Your task to perform on an android device: Open the phone app and click the voicemail tab. Image 0: 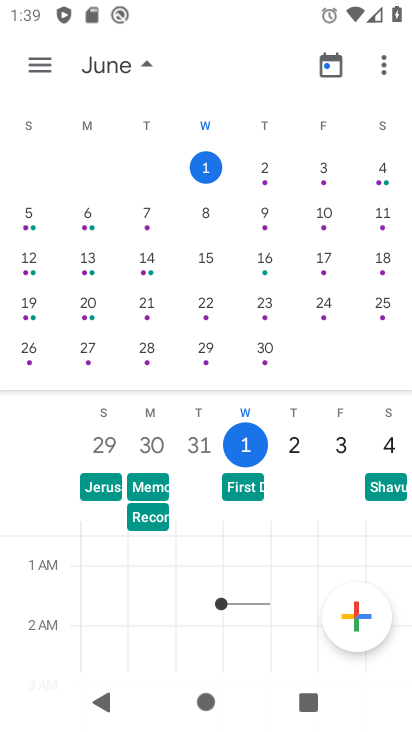
Step 0: press home button
Your task to perform on an android device: Open the phone app and click the voicemail tab. Image 1: 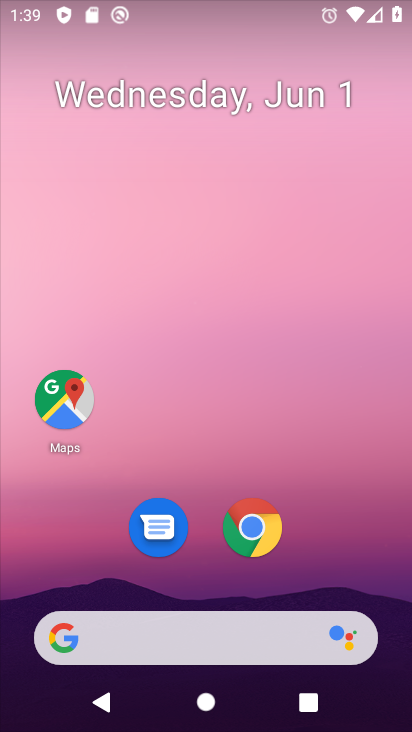
Step 1: drag from (383, 593) to (293, 129)
Your task to perform on an android device: Open the phone app and click the voicemail tab. Image 2: 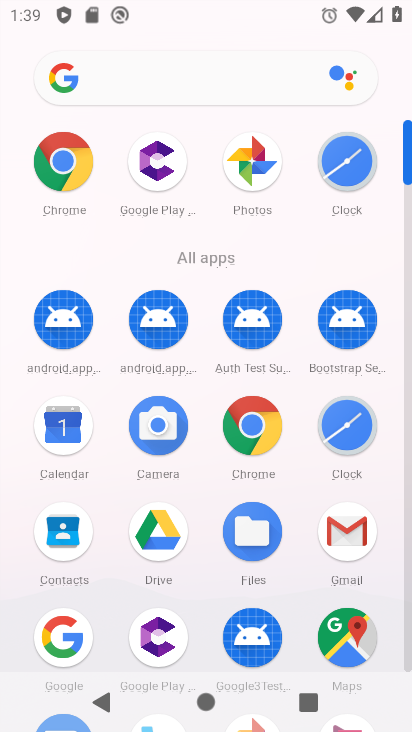
Step 2: click (409, 656)
Your task to perform on an android device: Open the phone app and click the voicemail tab. Image 3: 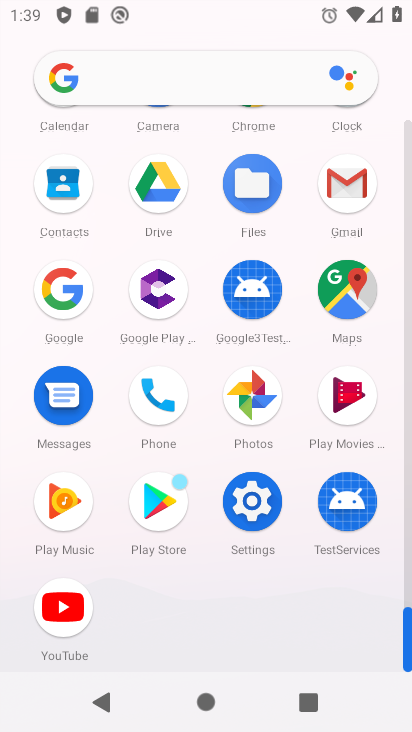
Step 3: click (174, 393)
Your task to perform on an android device: Open the phone app and click the voicemail tab. Image 4: 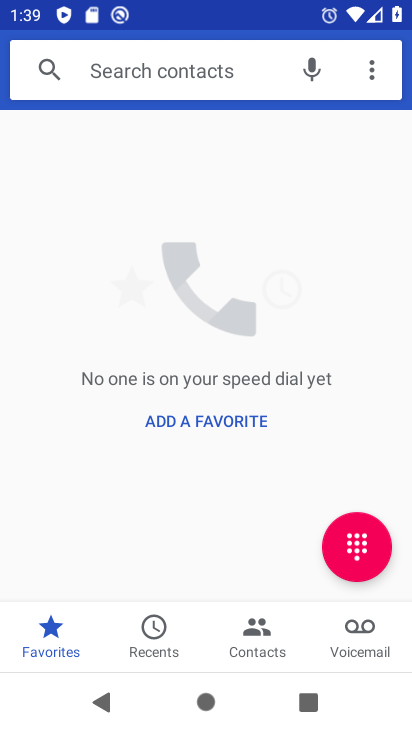
Step 4: click (360, 634)
Your task to perform on an android device: Open the phone app and click the voicemail tab. Image 5: 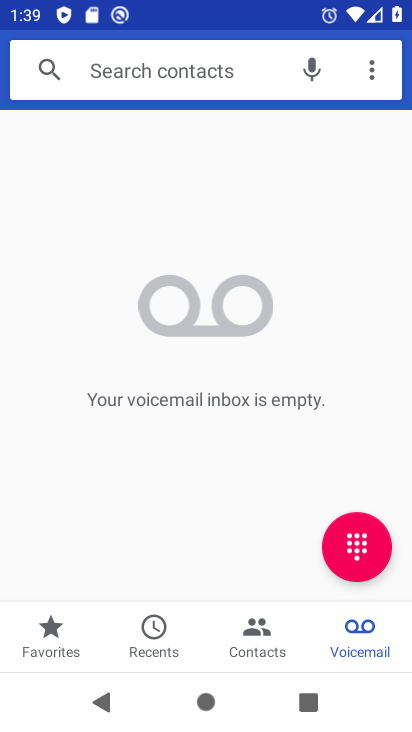
Step 5: task complete